Your task to perform on an android device: Open eBay Image 0: 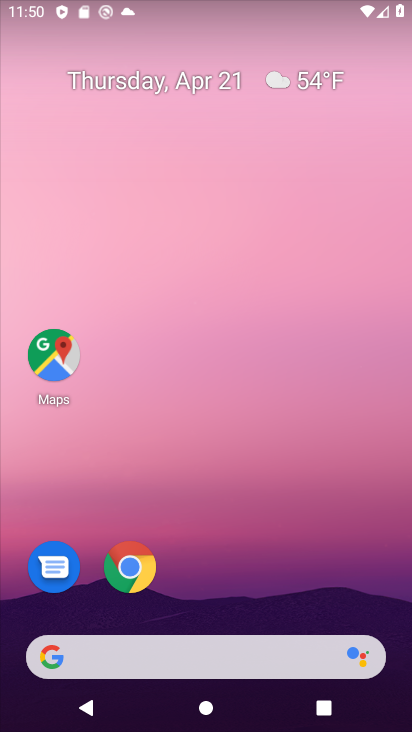
Step 0: click (262, 185)
Your task to perform on an android device: Open eBay Image 1: 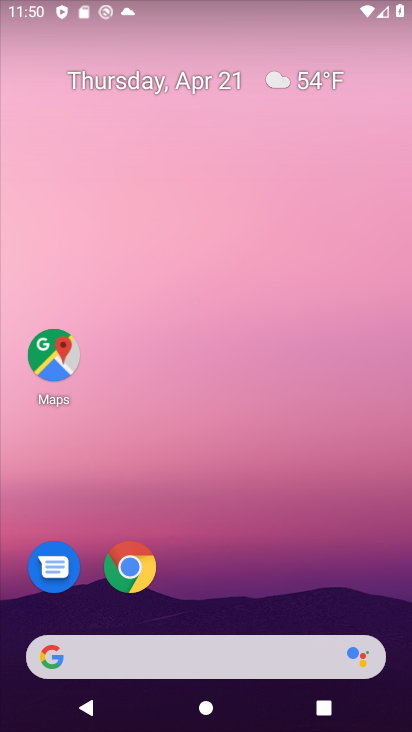
Step 1: drag from (255, 488) to (306, 74)
Your task to perform on an android device: Open eBay Image 2: 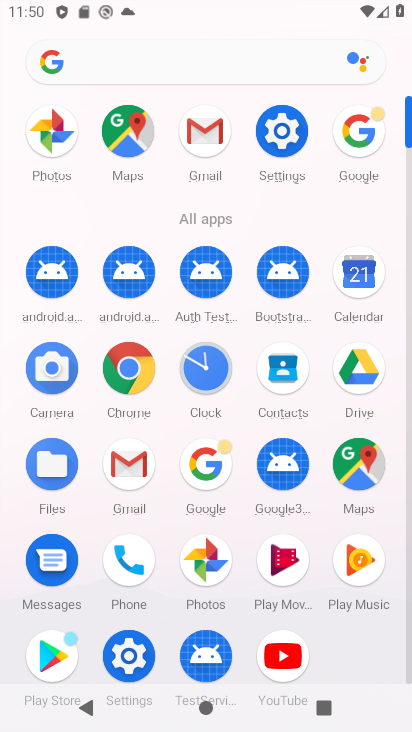
Step 2: click (130, 391)
Your task to perform on an android device: Open eBay Image 3: 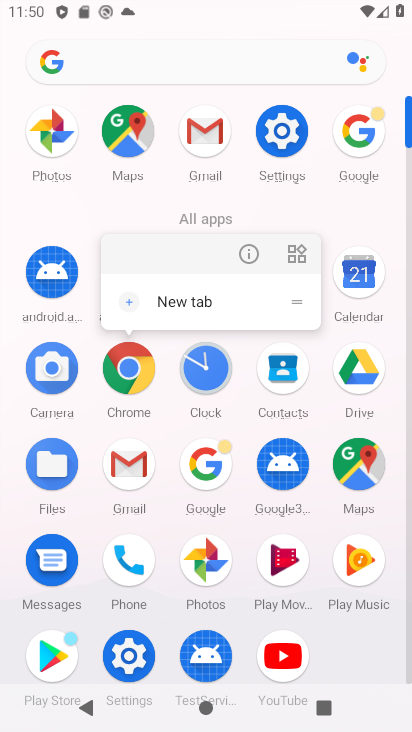
Step 3: click (130, 391)
Your task to perform on an android device: Open eBay Image 4: 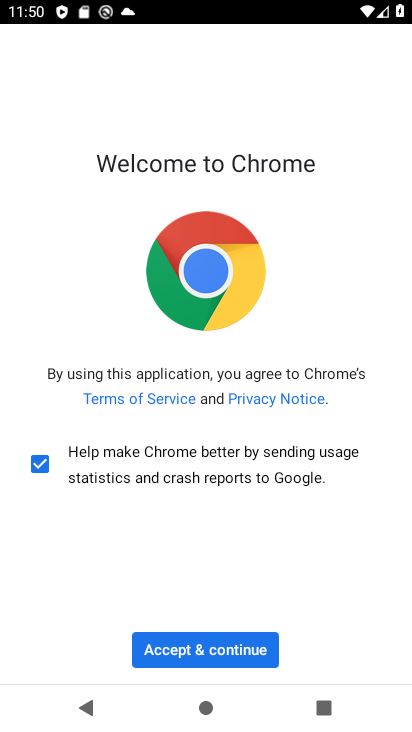
Step 4: click (217, 655)
Your task to perform on an android device: Open eBay Image 5: 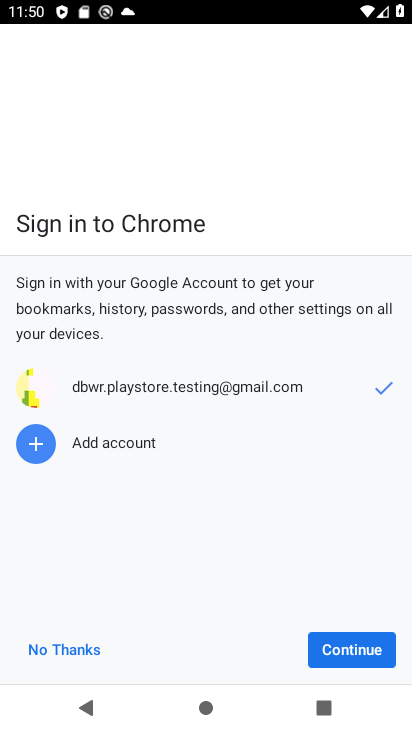
Step 5: click (359, 656)
Your task to perform on an android device: Open eBay Image 6: 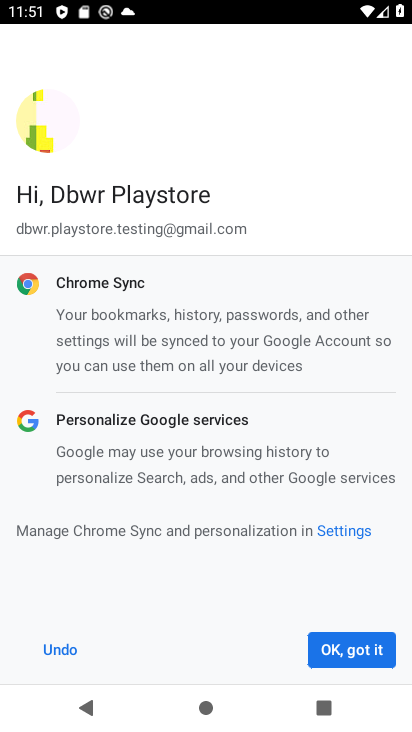
Step 6: click (379, 655)
Your task to perform on an android device: Open eBay Image 7: 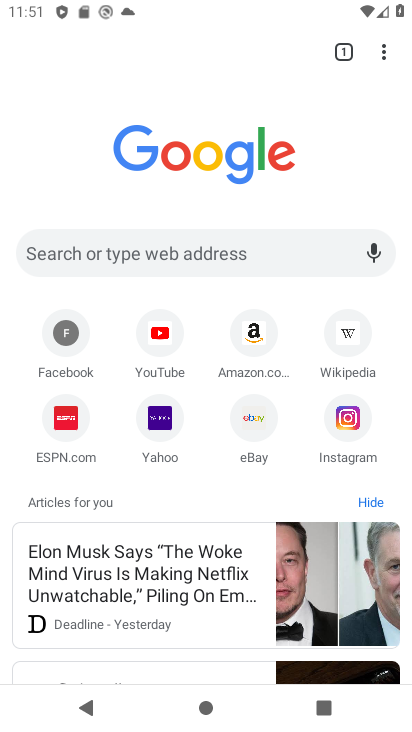
Step 7: click (263, 425)
Your task to perform on an android device: Open eBay Image 8: 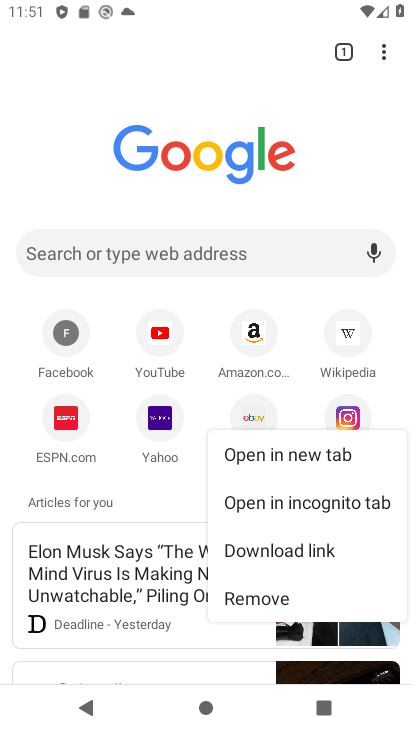
Step 8: click (265, 417)
Your task to perform on an android device: Open eBay Image 9: 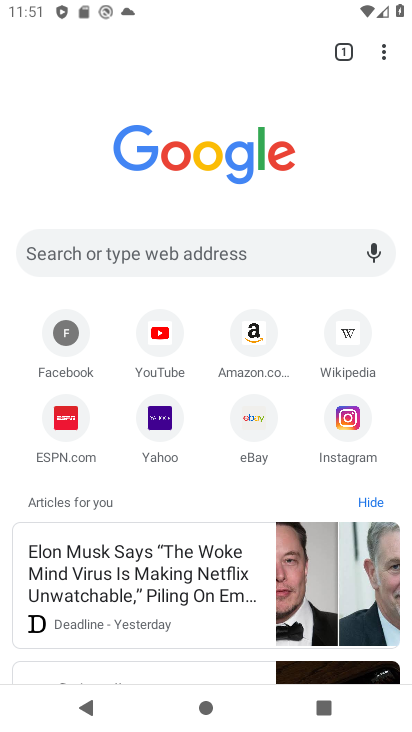
Step 9: click (261, 428)
Your task to perform on an android device: Open eBay Image 10: 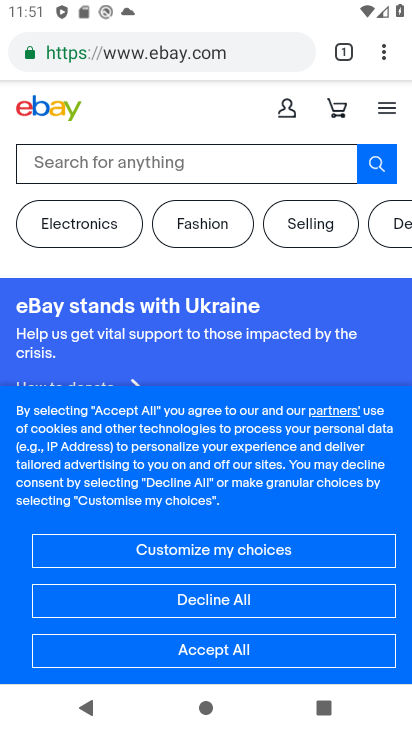
Step 10: task complete